Your task to perform on an android device: change your default location settings in chrome Image 0: 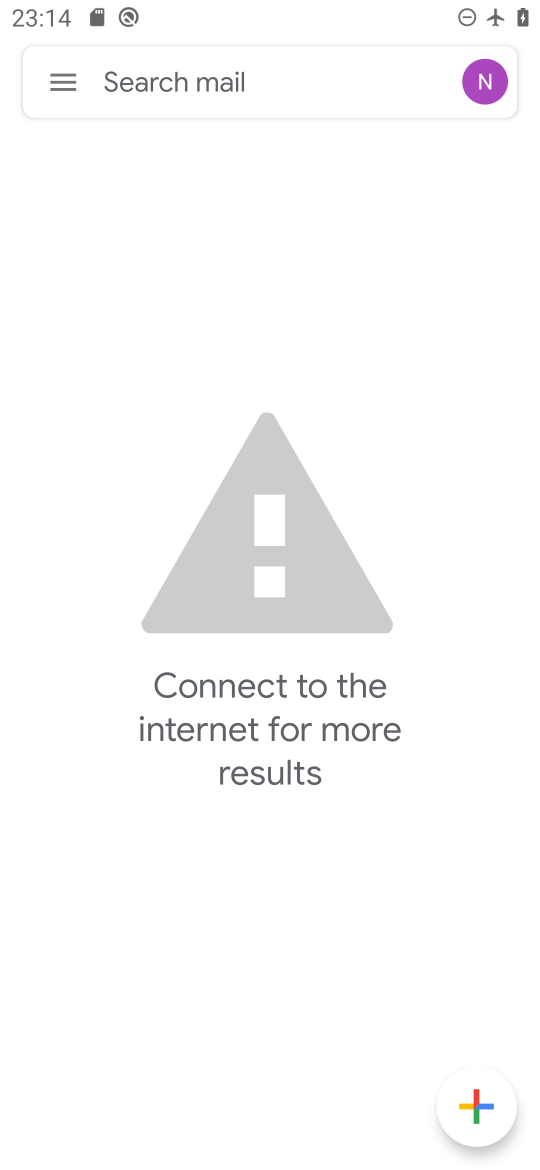
Step 0: press home button
Your task to perform on an android device: change your default location settings in chrome Image 1: 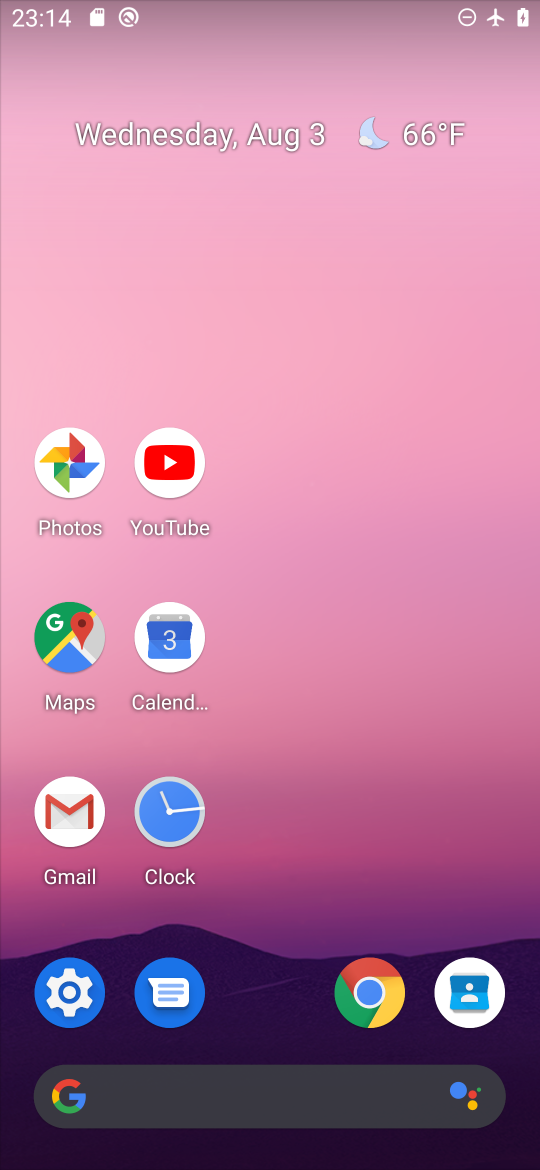
Step 1: click (364, 993)
Your task to perform on an android device: change your default location settings in chrome Image 2: 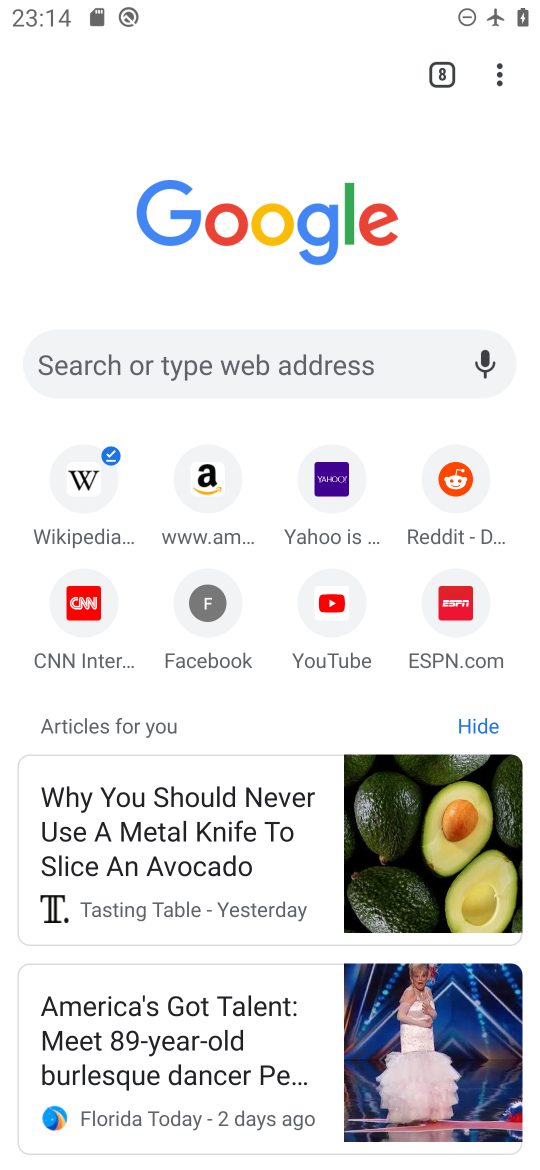
Step 2: click (501, 61)
Your task to perform on an android device: change your default location settings in chrome Image 3: 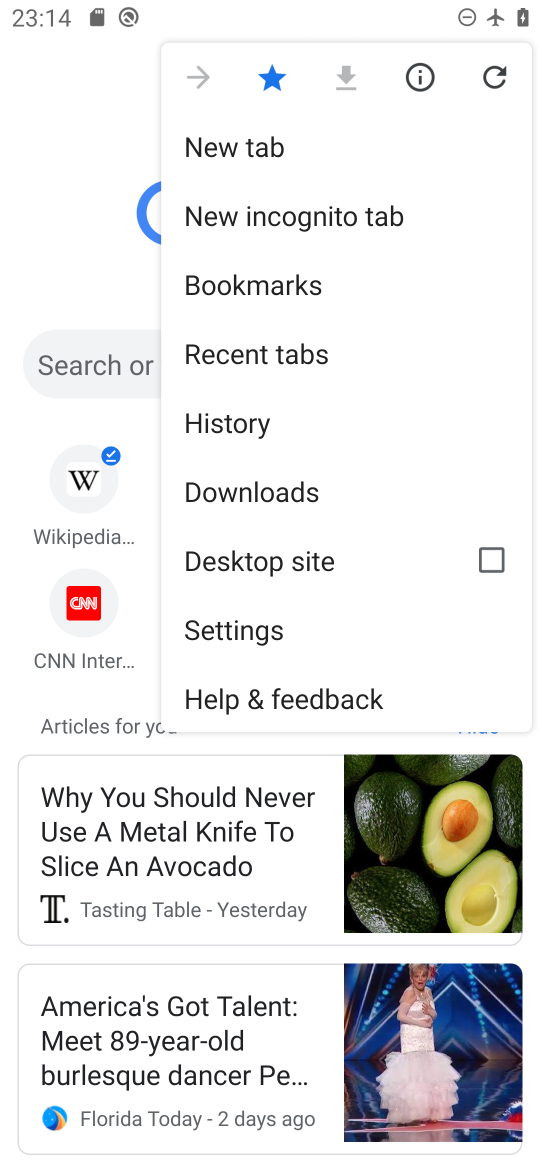
Step 3: click (239, 613)
Your task to perform on an android device: change your default location settings in chrome Image 4: 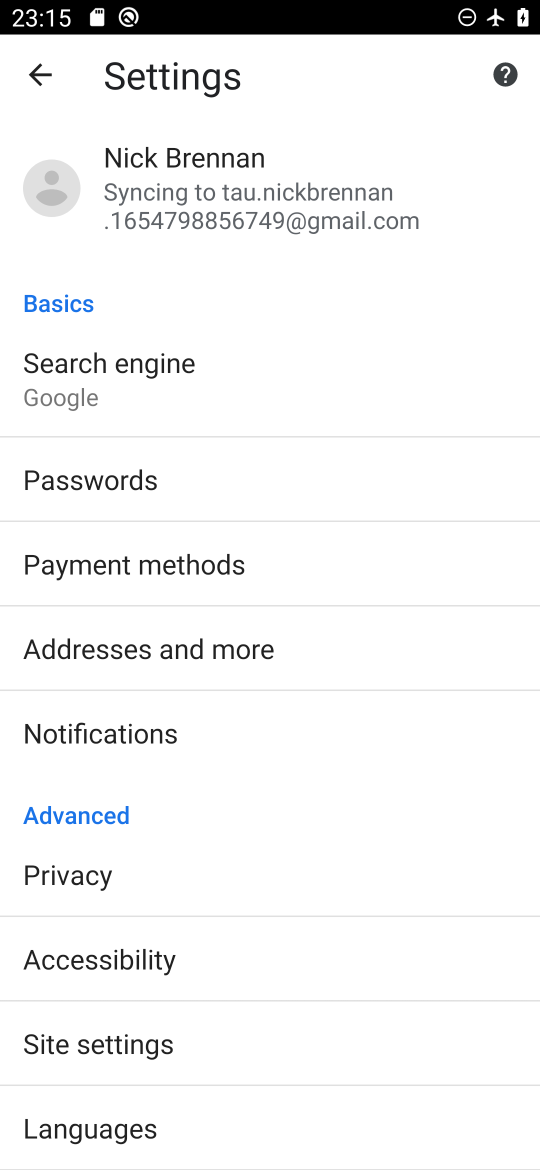
Step 4: click (145, 1035)
Your task to perform on an android device: change your default location settings in chrome Image 5: 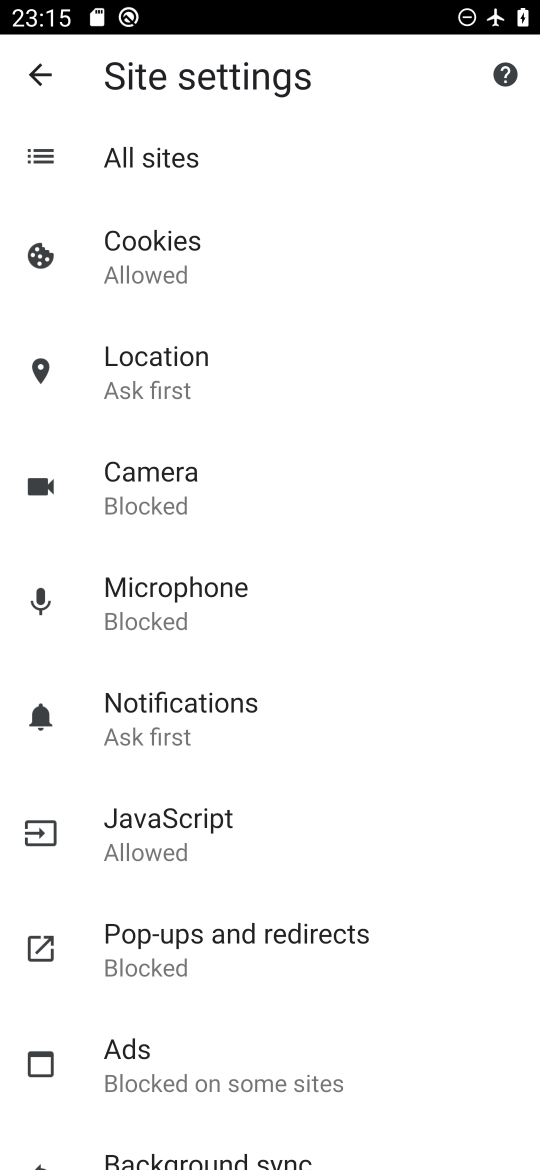
Step 5: click (178, 358)
Your task to perform on an android device: change your default location settings in chrome Image 6: 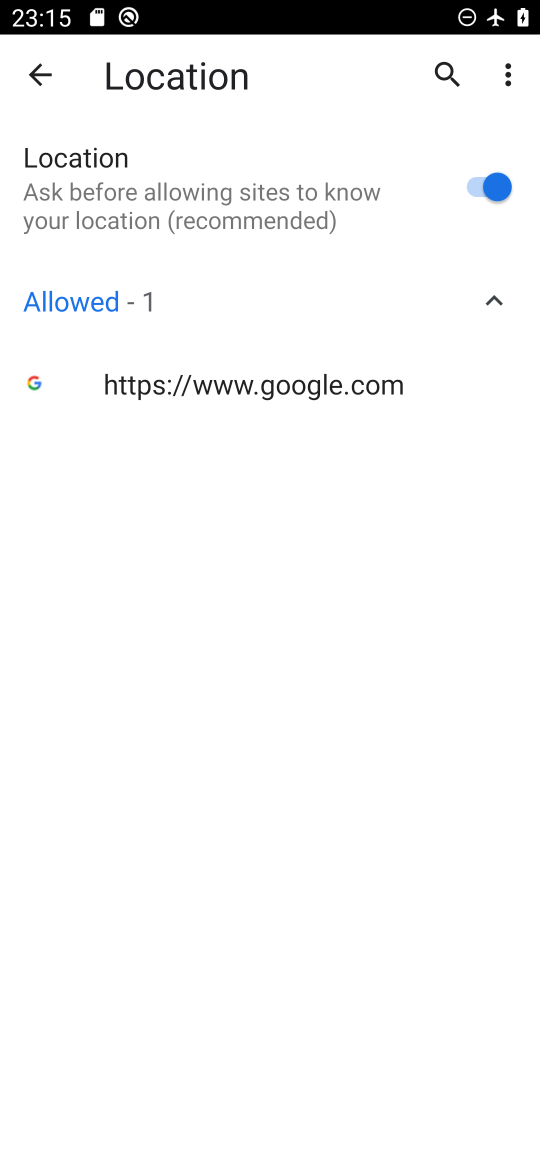
Step 6: click (481, 185)
Your task to perform on an android device: change your default location settings in chrome Image 7: 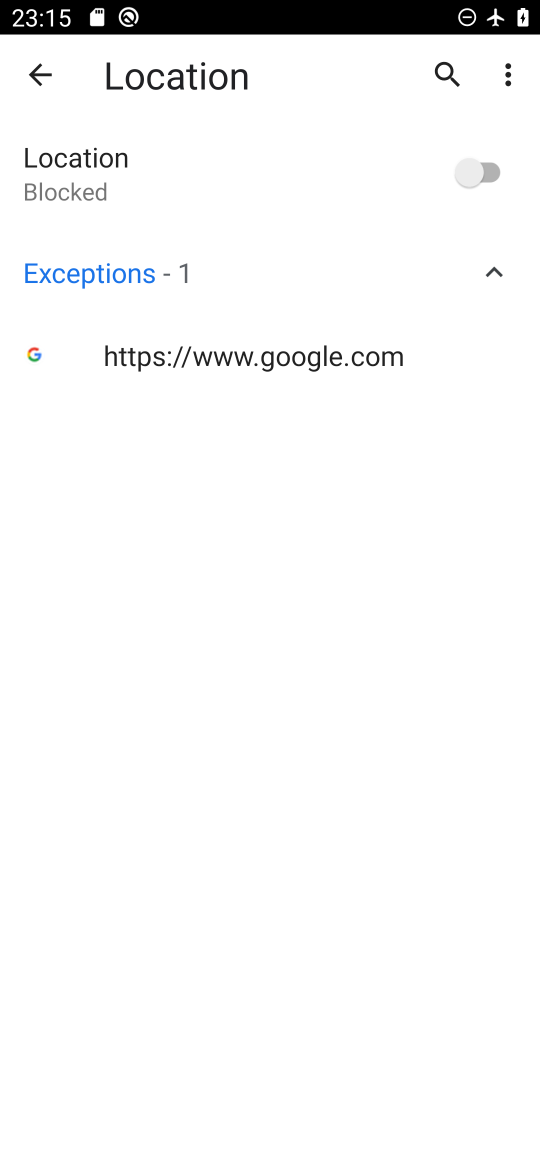
Step 7: task complete